Your task to perform on an android device: clear history in the chrome app Image 0: 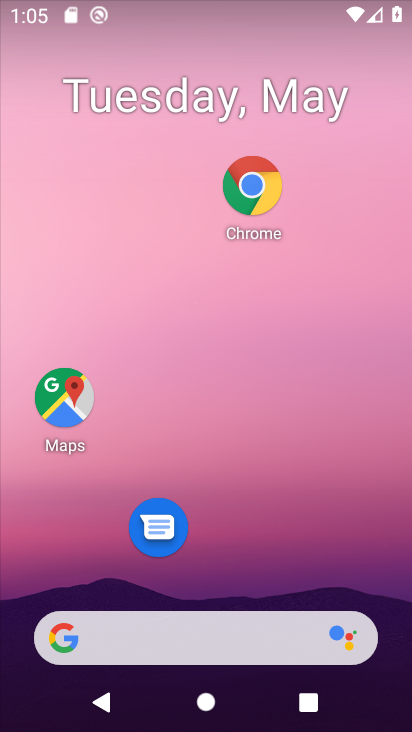
Step 0: click (251, 178)
Your task to perform on an android device: clear history in the chrome app Image 1: 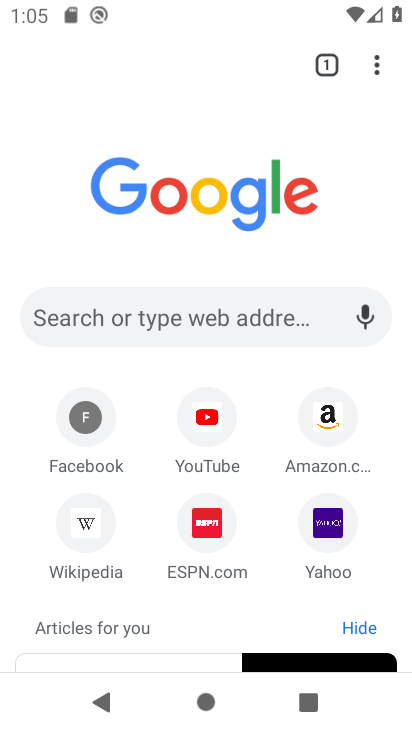
Step 1: click (378, 64)
Your task to perform on an android device: clear history in the chrome app Image 2: 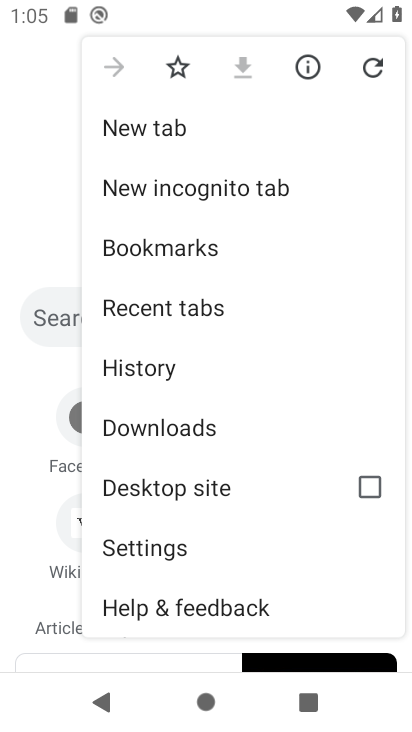
Step 2: click (159, 371)
Your task to perform on an android device: clear history in the chrome app Image 3: 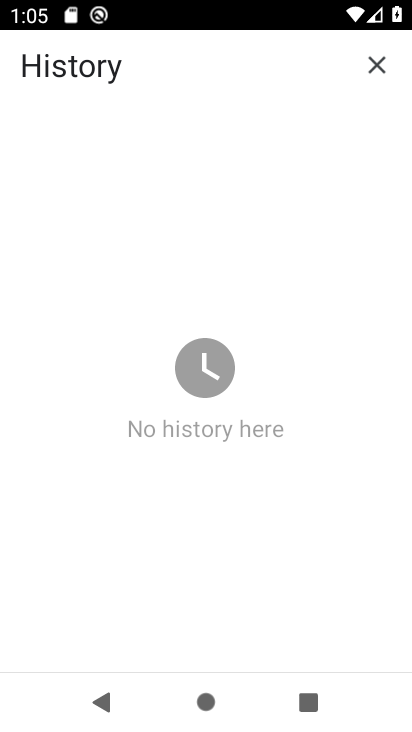
Step 3: task complete